Your task to perform on an android device: delete a single message in the gmail app Image 0: 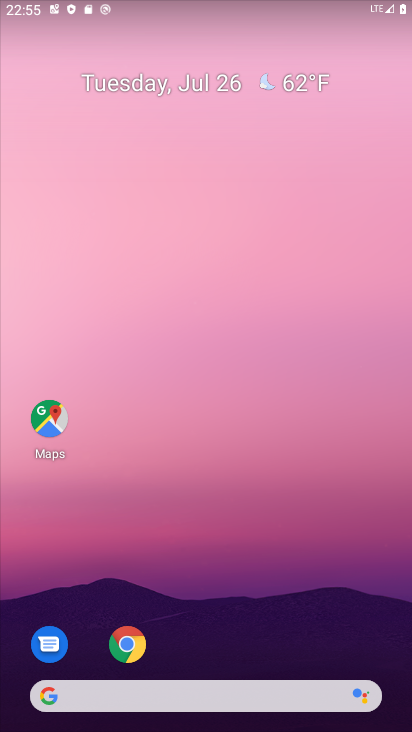
Step 0: drag from (268, 667) to (240, 78)
Your task to perform on an android device: delete a single message in the gmail app Image 1: 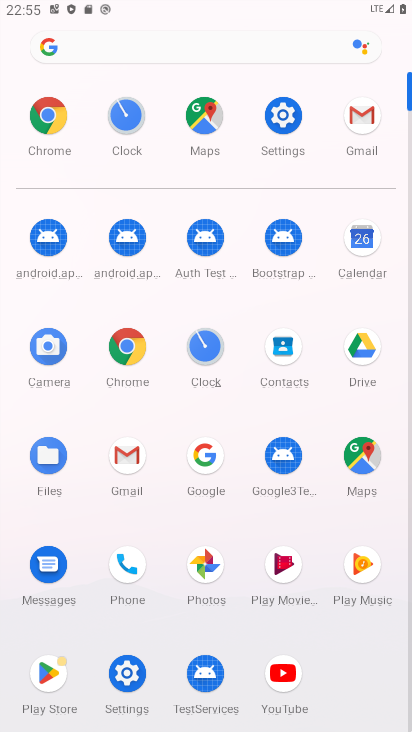
Step 1: click (365, 113)
Your task to perform on an android device: delete a single message in the gmail app Image 2: 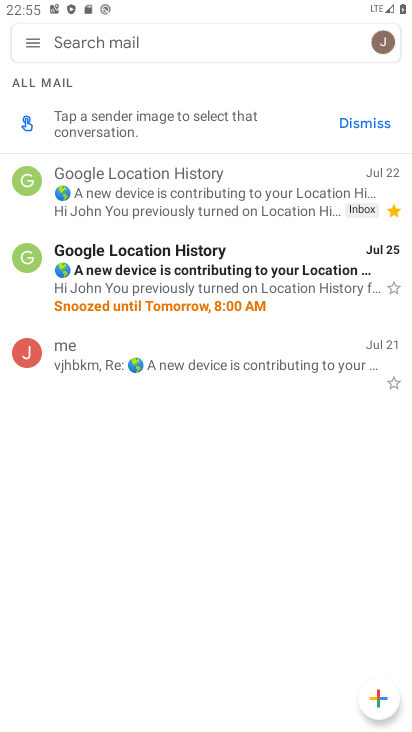
Step 2: click (192, 369)
Your task to perform on an android device: delete a single message in the gmail app Image 3: 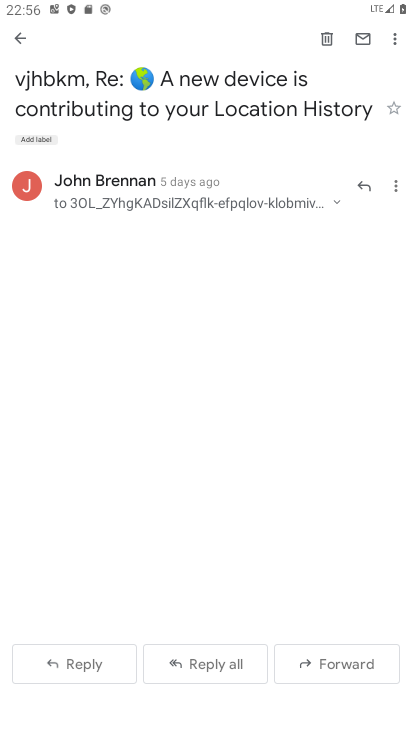
Step 3: click (332, 41)
Your task to perform on an android device: delete a single message in the gmail app Image 4: 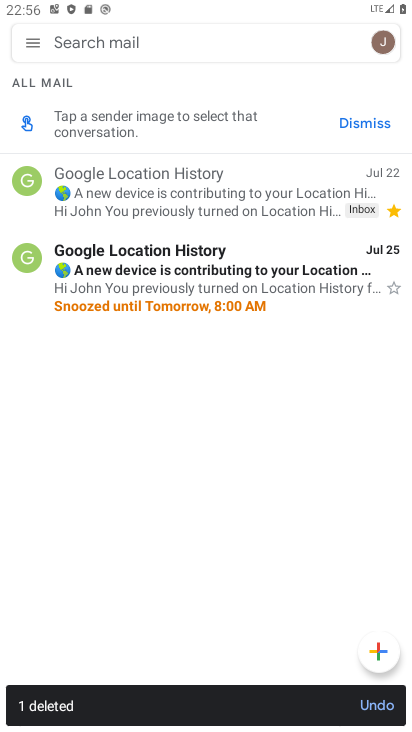
Step 4: task complete